Your task to perform on an android device: Open the map Image 0: 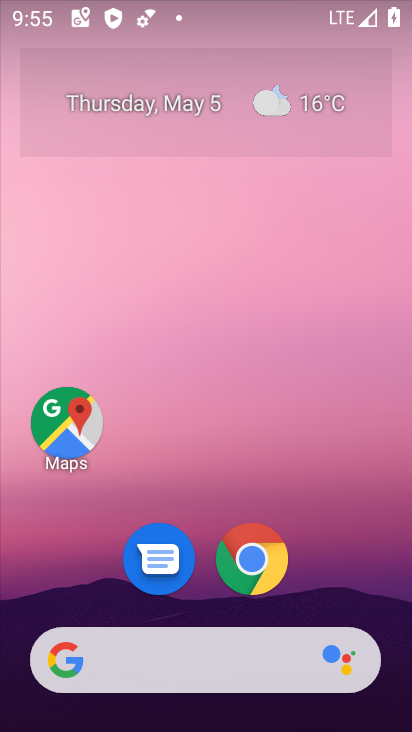
Step 0: click (91, 437)
Your task to perform on an android device: Open the map Image 1: 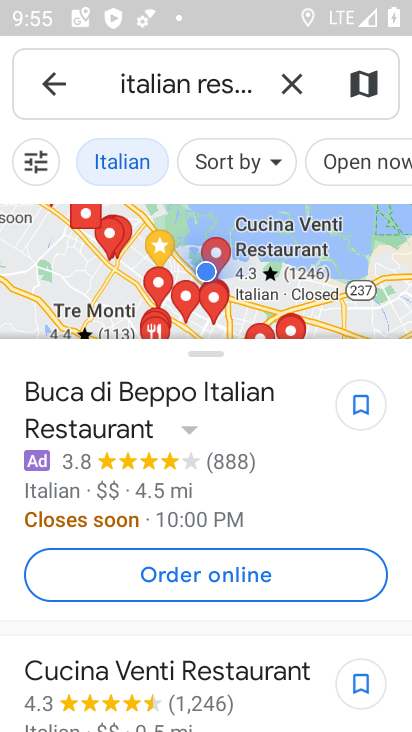
Step 1: task complete